Your task to perform on an android device: Go to sound settings Image 0: 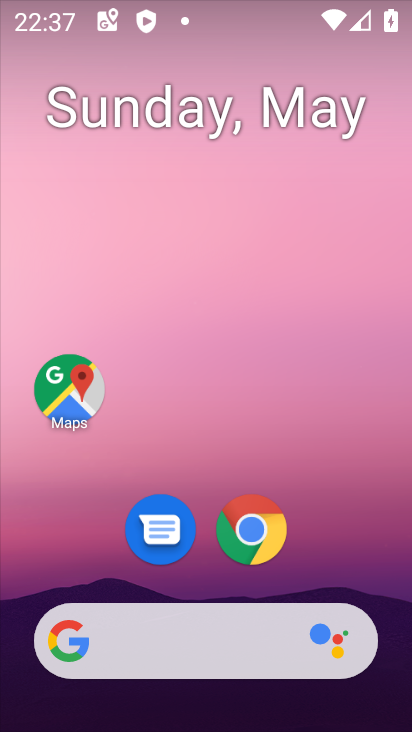
Step 0: drag from (322, 572) to (249, 302)
Your task to perform on an android device: Go to sound settings Image 1: 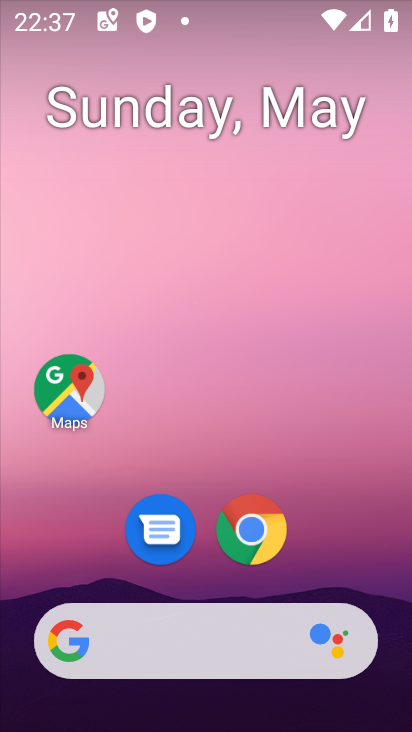
Step 1: drag from (388, 532) to (109, 0)
Your task to perform on an android device: Go to sound settings Image 2: 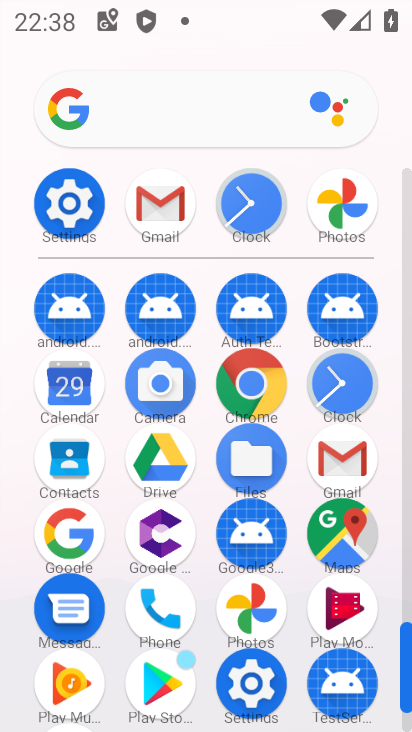
Step 2: click (65, 225)
Your task to perform on an android device: Go to sound settings Image 3: 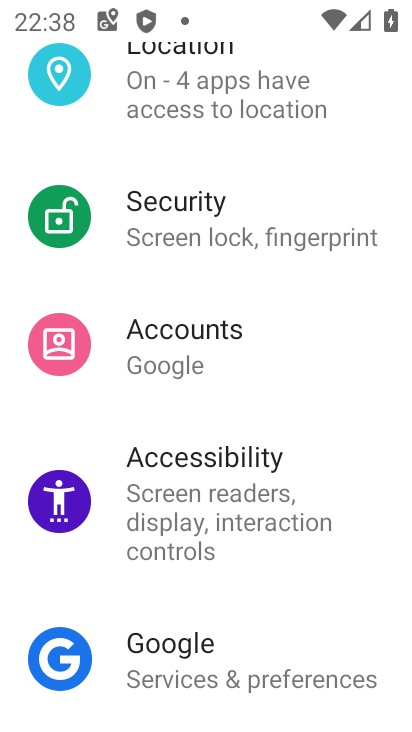
Step 3: drag from (218, 288) to (374, 728)
Your task to perform on an android device: Go to sound settings Image 4: 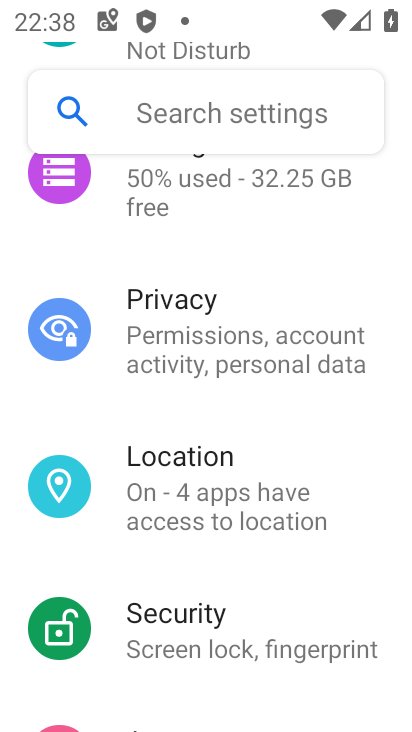
Step 4: drag from (229, 211) to (358, 580)
Your task to perform on an android device: Go to sound settings Image 5: 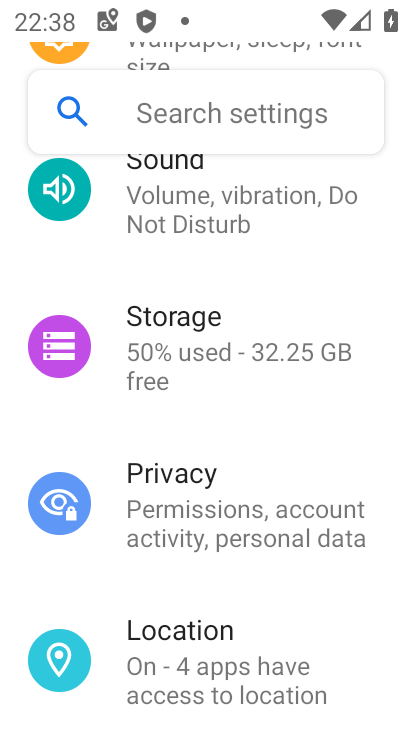
Step 5: drag from (252, 263) to (404, 699)
Your task to perform on an android device: Go to sound settings Image 6: 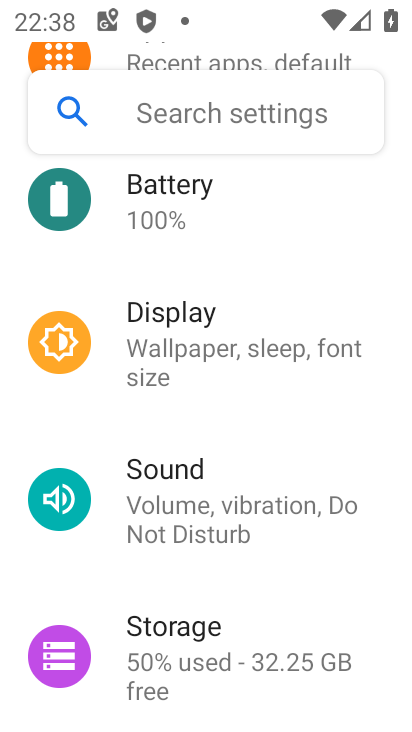
Step 6: click (294, 310)
Your task to perform on an android device: Go to sound settings Image 7: 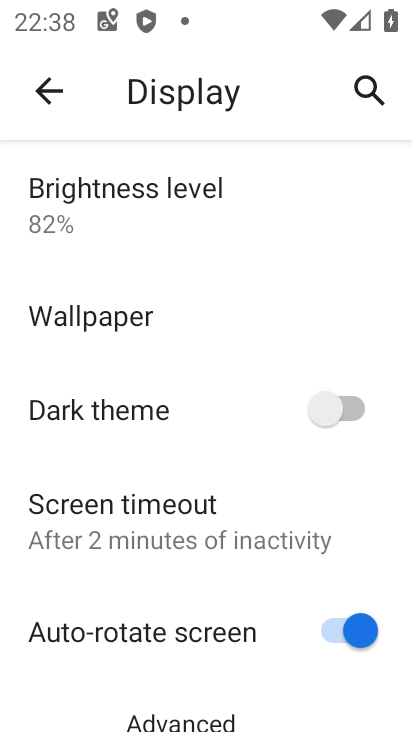
Step 7: task complete